Your task to perform on an android device: install app "Adobe Acrobat Reader" Image 0: 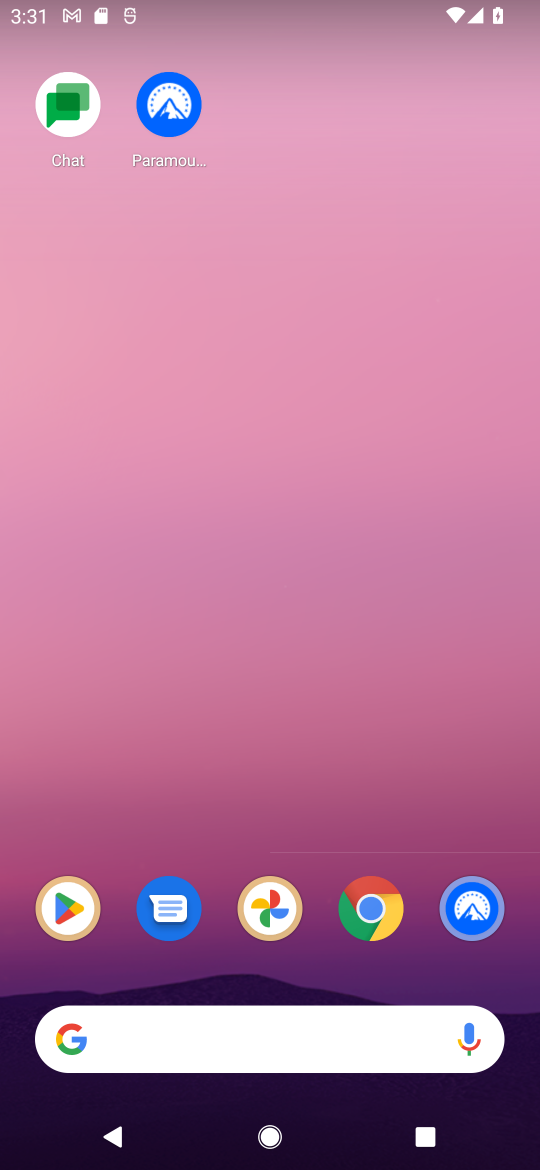
Step 0: press home button
Your task to perform on an android device: install app "Adobe Acrobat Reader" Image 1: 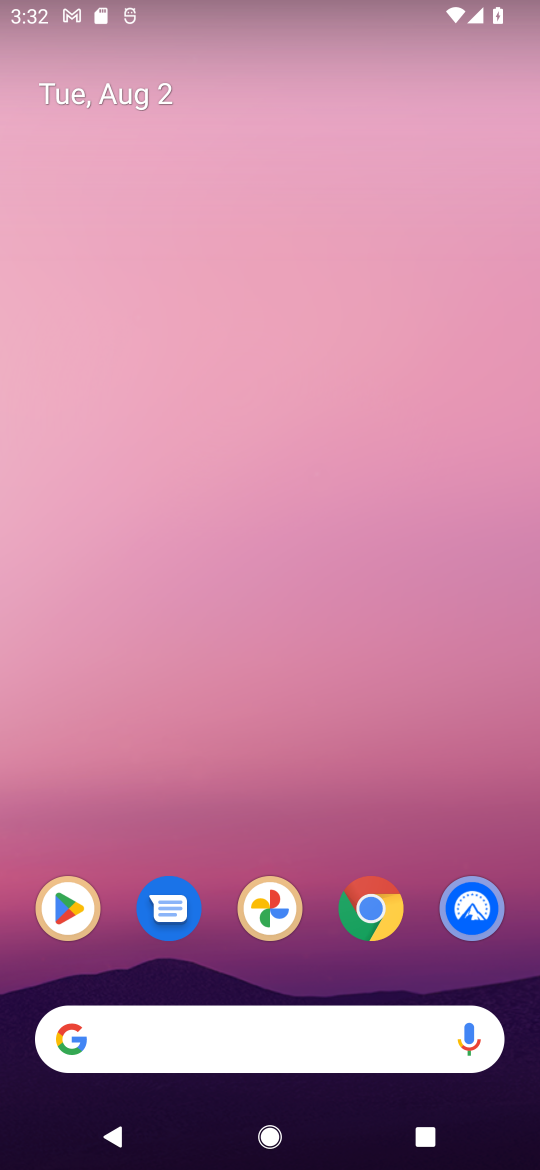
Step 1: click (66, 894)
Your task to perform on an android device: install app "Adobe Acrobat Reader" Image 2: 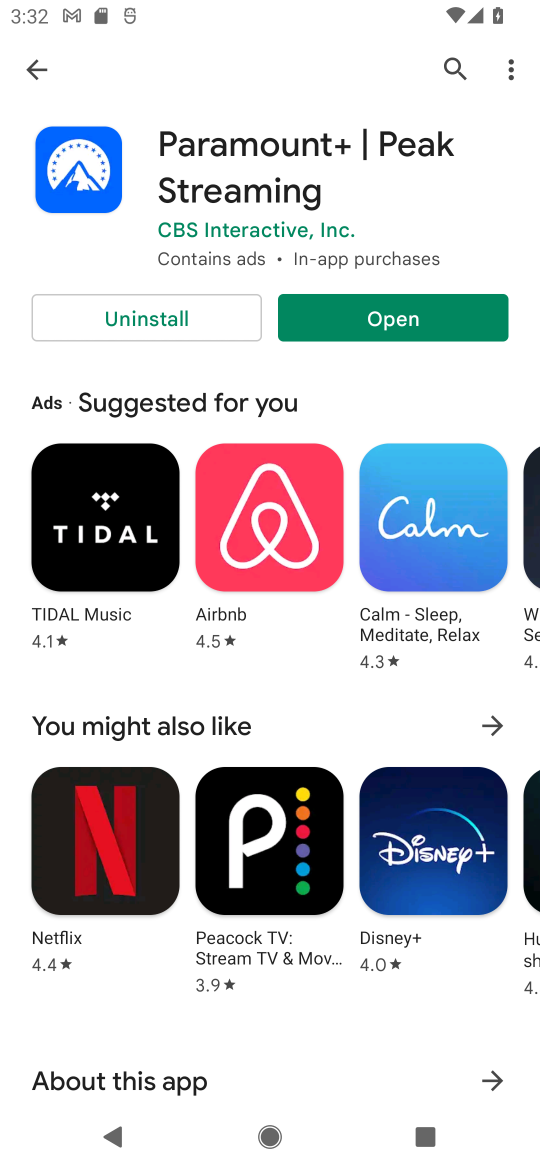
Step 2: click (443, 73)
Your task to perform on an android device: install app "Adobe Acrobat Reader" Image 3: 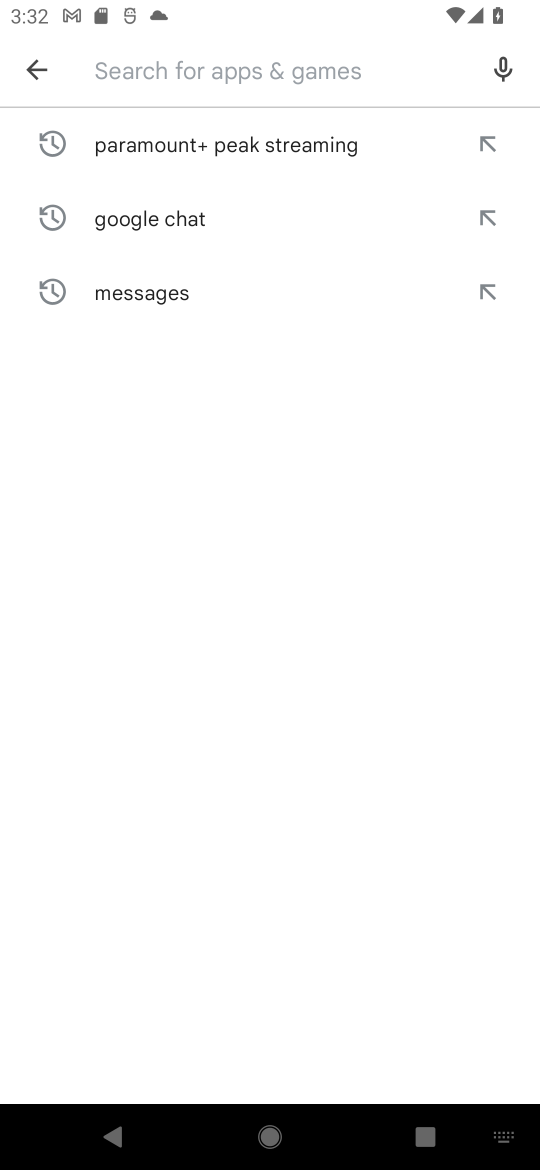
Step 3: type "Adobe Acrobat Reader"
Your task to perform on an android device: install app "Adobe Acrobat Reader" Image 4: 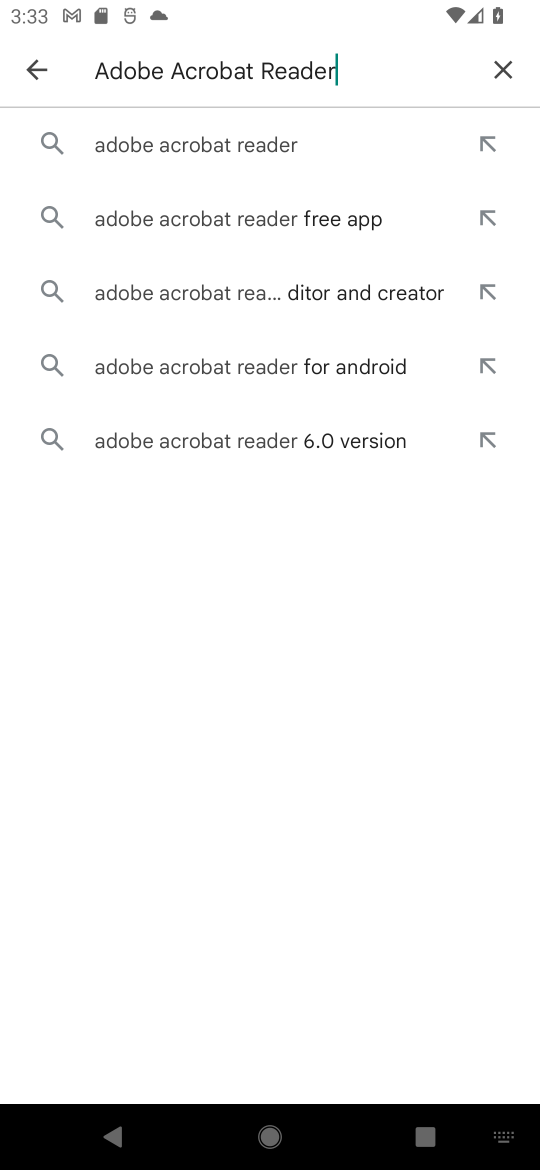
Step 4: click (284, 152)
Your task to perform on an android device: install app "Adobe Acrobat Reader" Image 5: 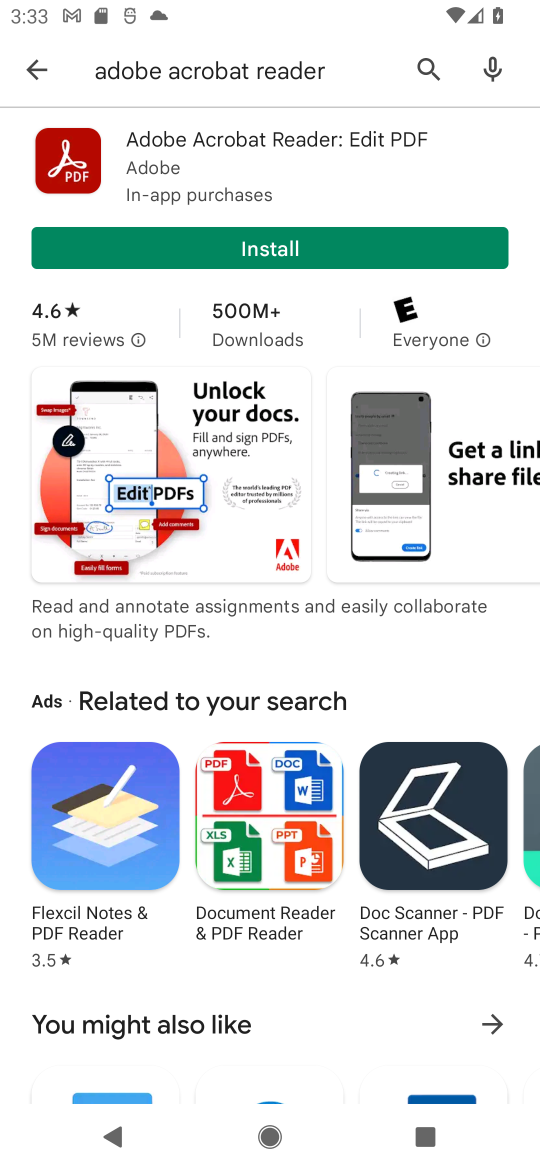
Step 5: click (271, 249)
Your task to perform on an android device: install app "Adobe Acrobat Reader" Image 6: 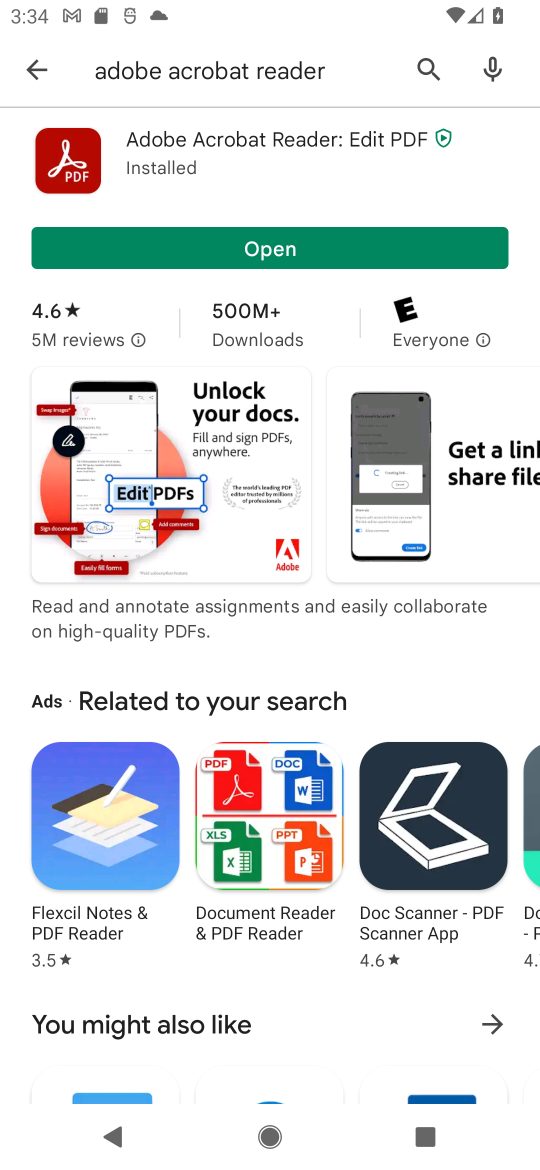
Step 6: click (286, 242)
Your task to perform on an android device: install app "Adobe Acrobat Reader" Image 7: 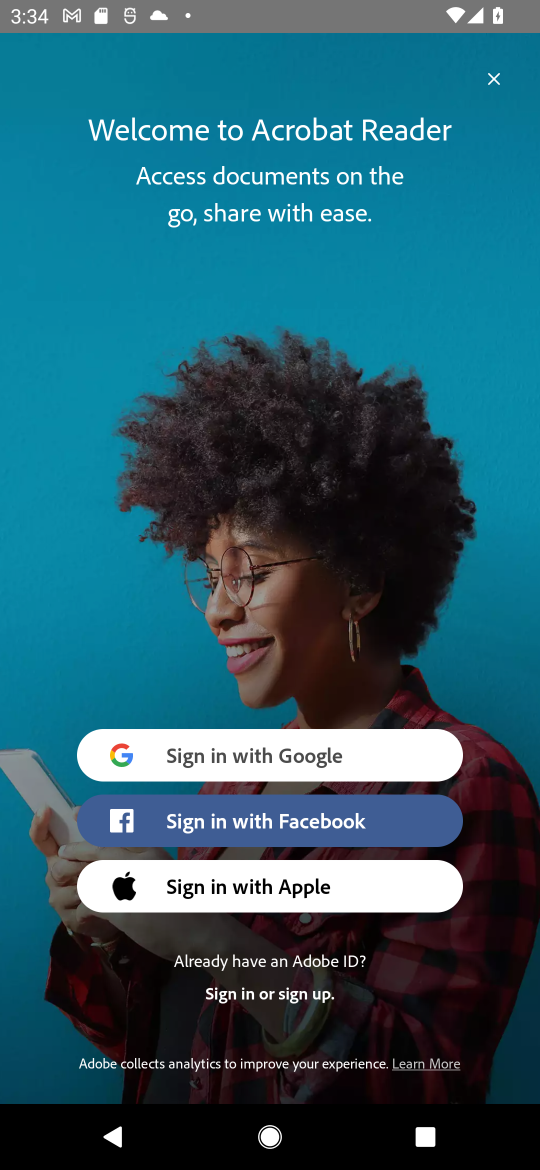
Step 7: click (261, 757)
Your task to perform on an android device: install app "Adobe Acrobat Reader" Image 8: 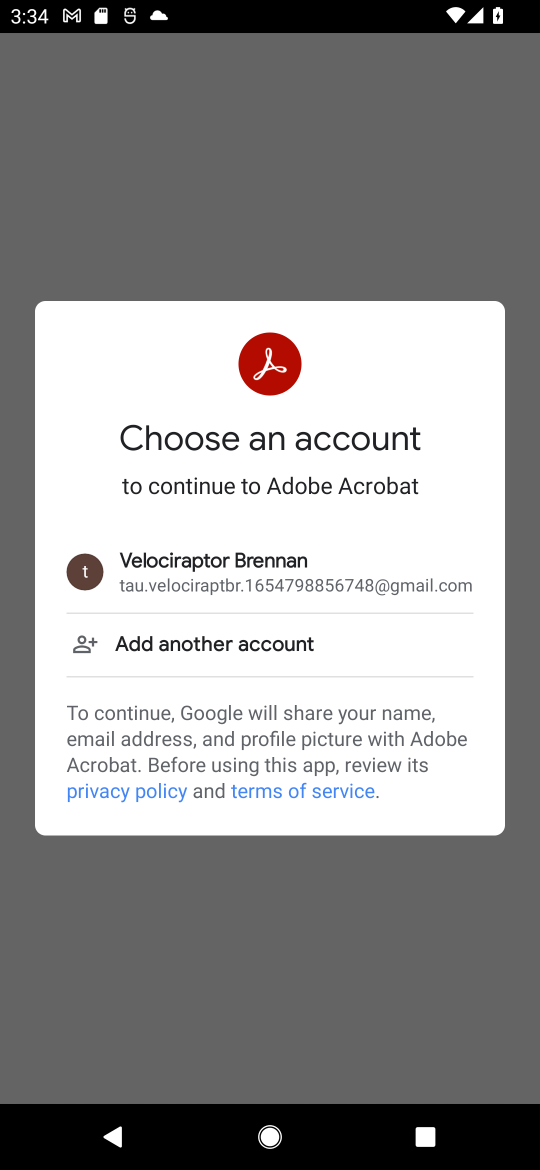
Step 8: click (227, 584)
Your task to perform on an android device: install app "Adobe Acrobat Reader" Image 9: 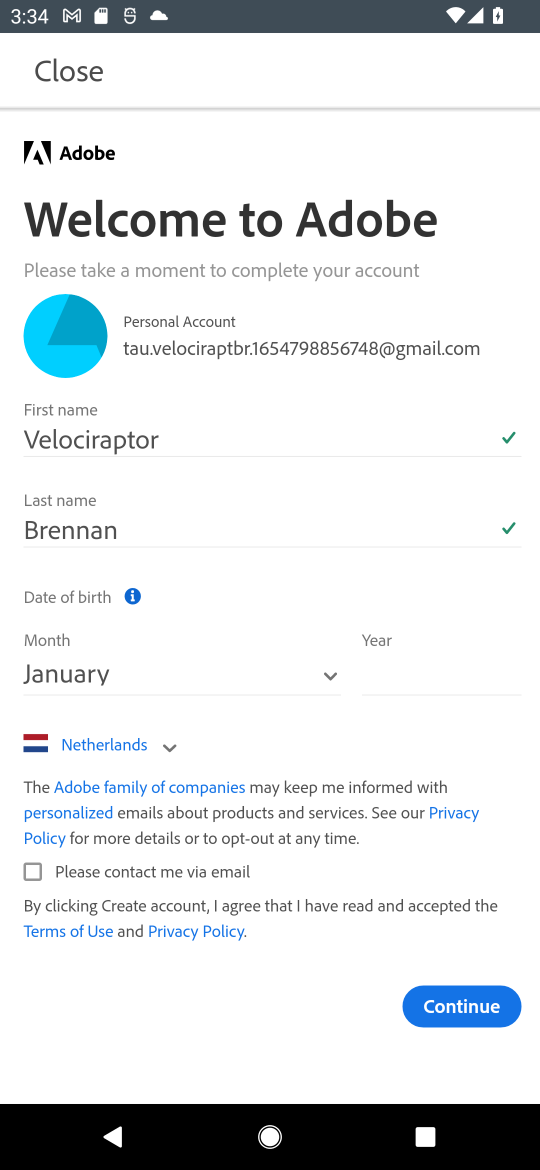
Step 9: click (467, 1010)
Your task to perform on an android device: install app "Adobe Acrobat Reader" Image 10: 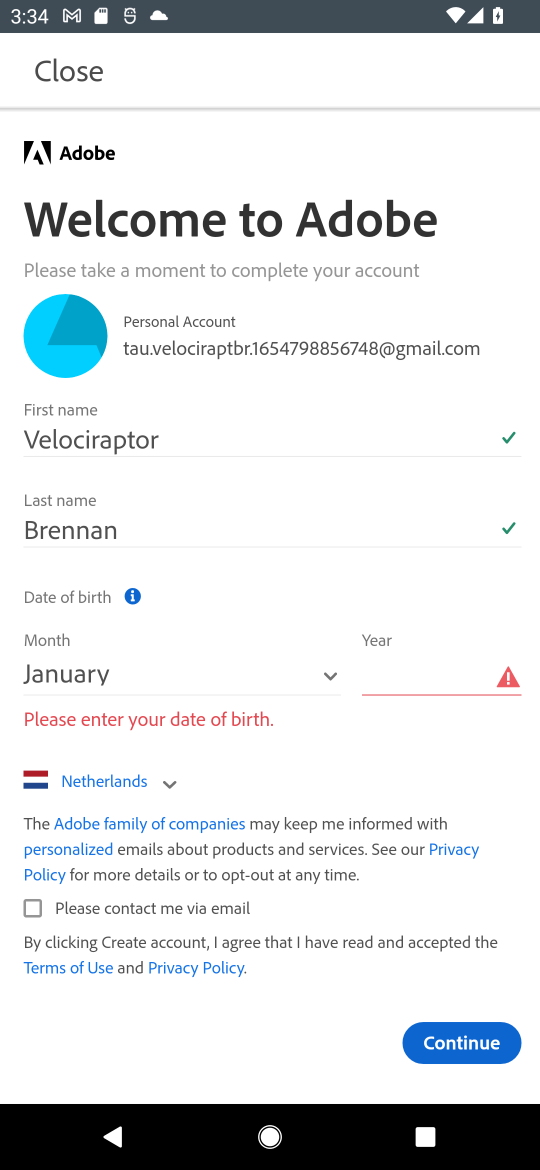
Step 10: task complete